Your task to perform on an android device: Search for hotels in Miami Image 0: 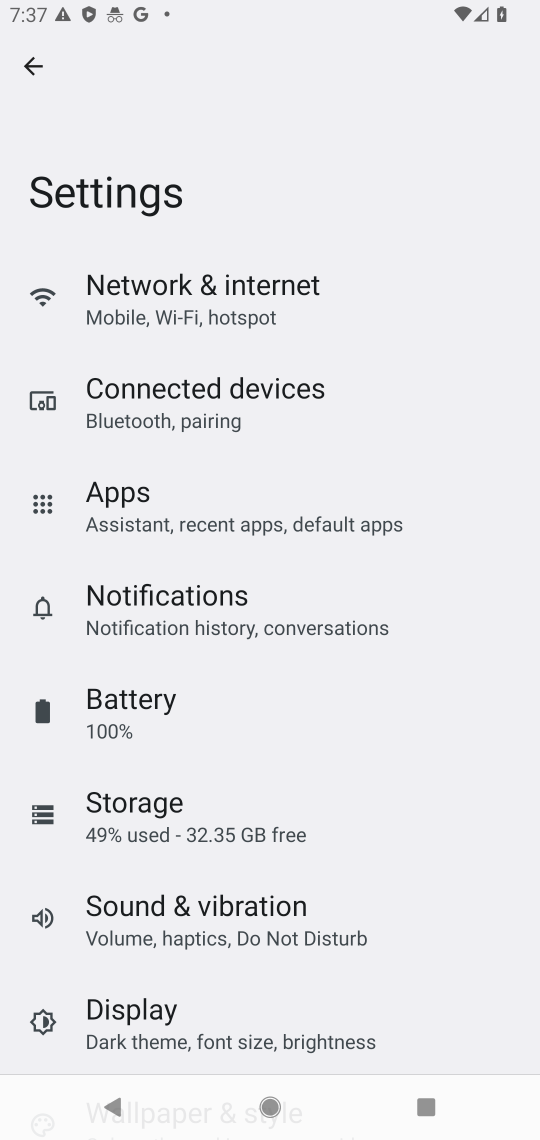
Step 0: press home button
Your task to perform on an android device: Search for hotels in Miami Image 1: 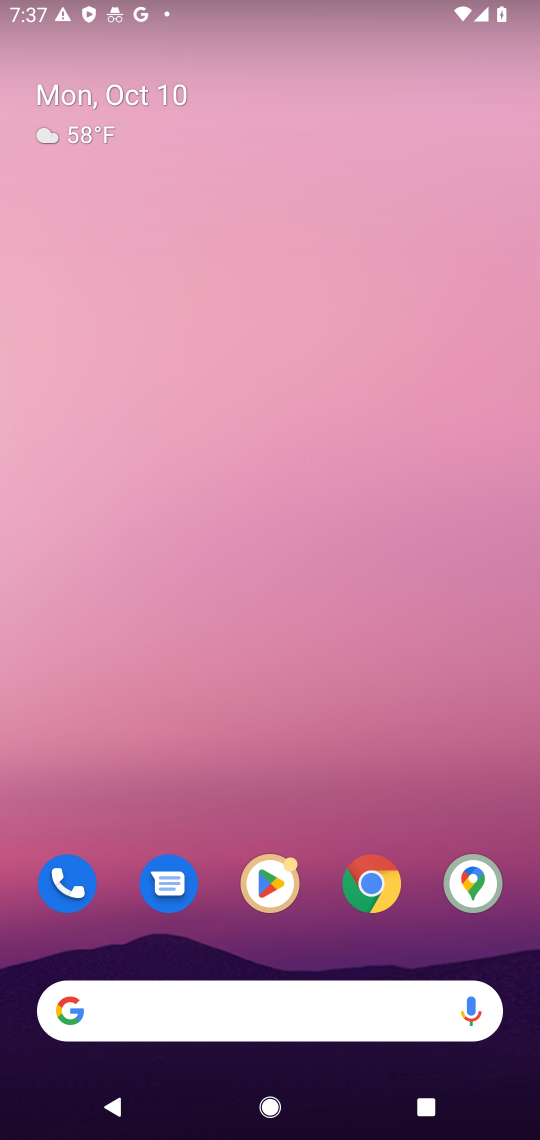
Step 1: drag from (300, 985) to (353, 193)
Your task to perform on an android device: Search for hotels in Miami Image 2: 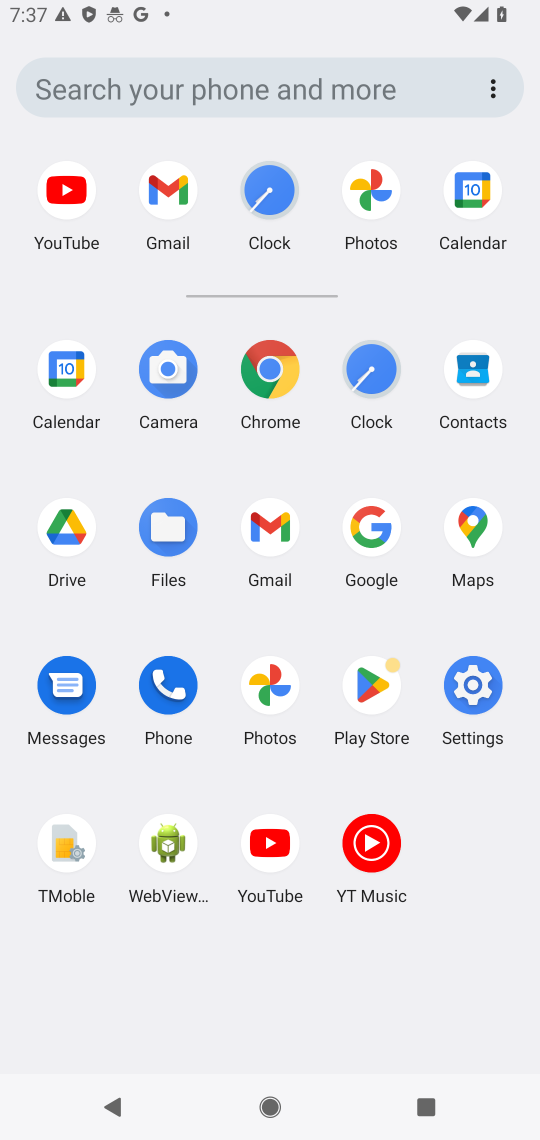
Step 2: click (382, 531)
Your task to perform on an android device: Search for hotels in Miami Image 3: 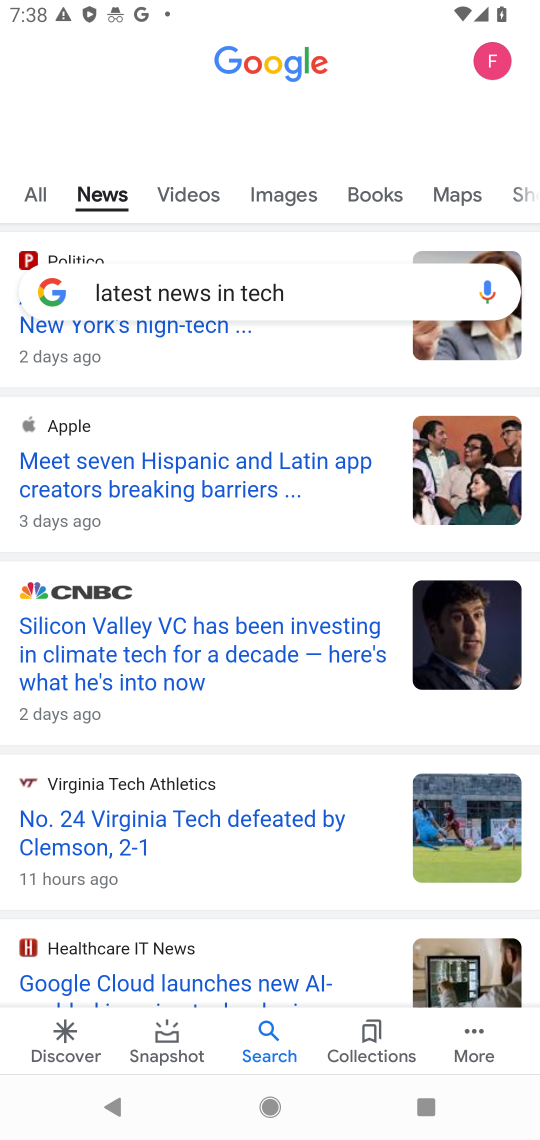
Step 3: click (339, 287)
Your task to perform on an android device: Search for hotels in Miami Image 4: 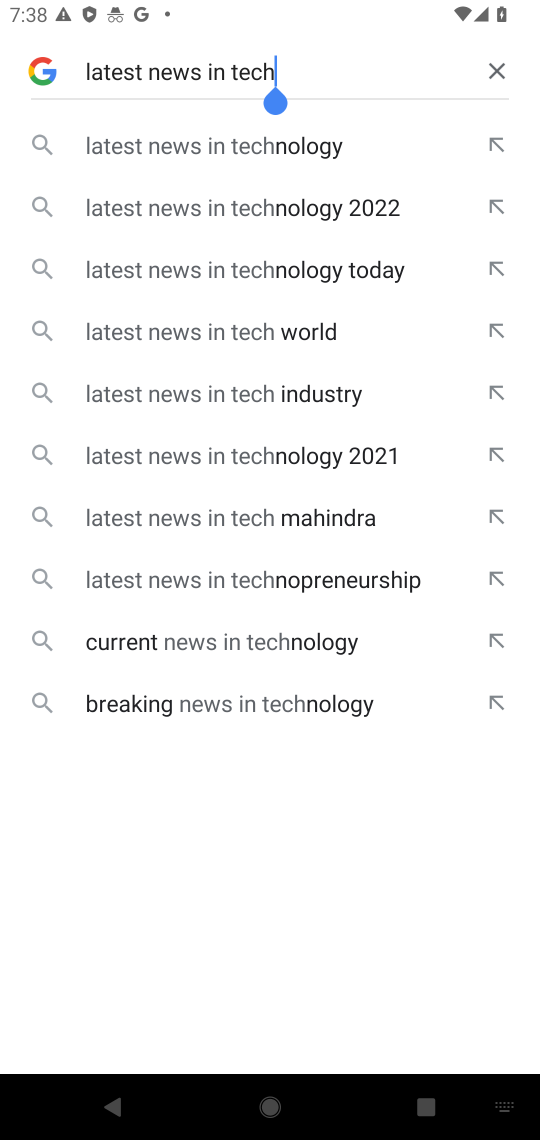
Step 4: click (501, 66)
Your task to perform on an android device: Search for hotels in Miami Image 5: 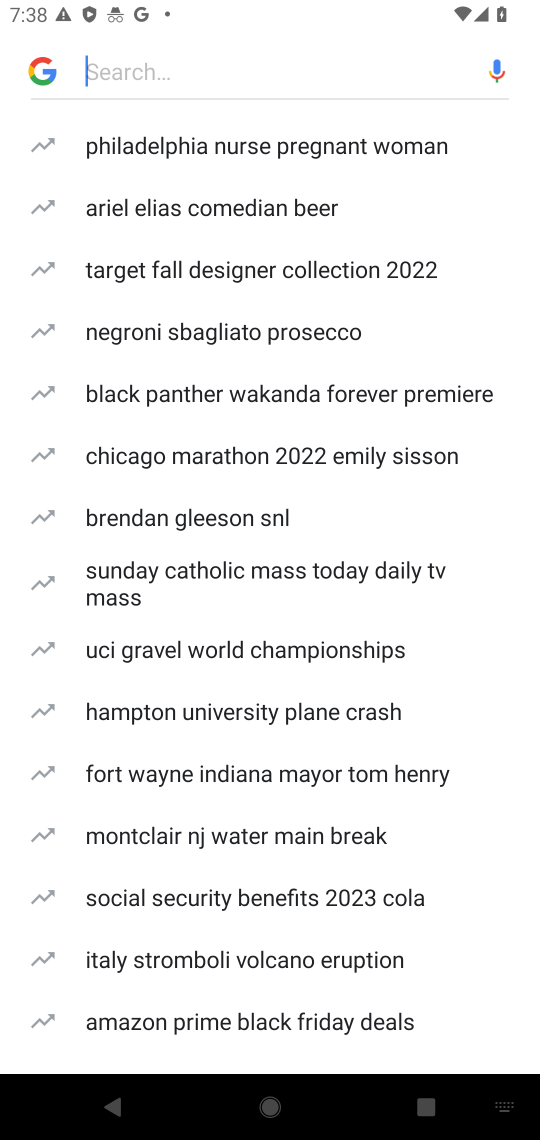
Step 5: type "hotels in Miami"
Your task to perform on an android device: Search for hotels in Miami Image 6: 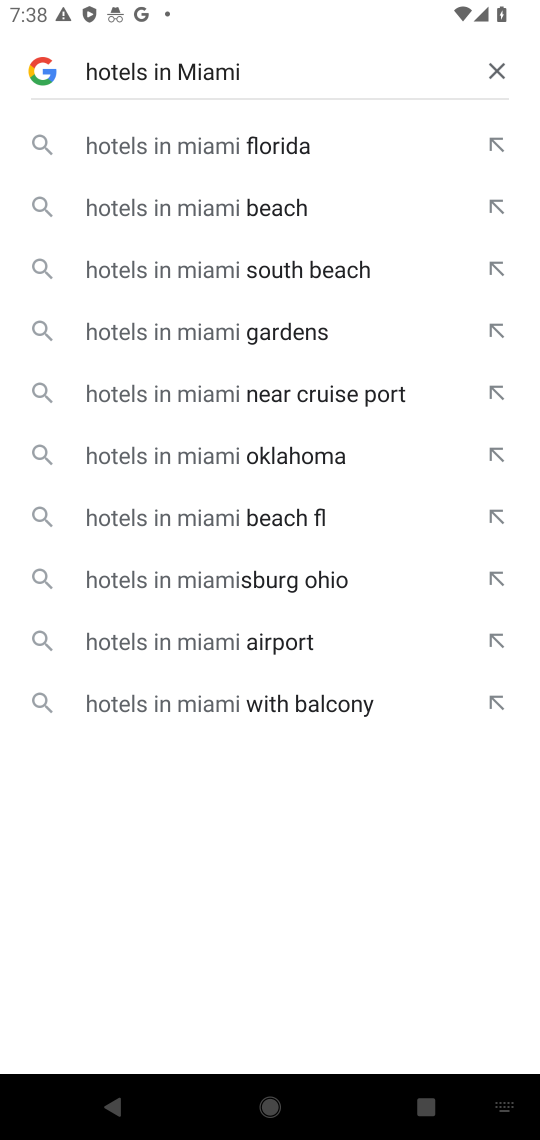
Step 6: click (242, 152)
Your task to perform on an android device: Search for hotels in Miami Image 7: 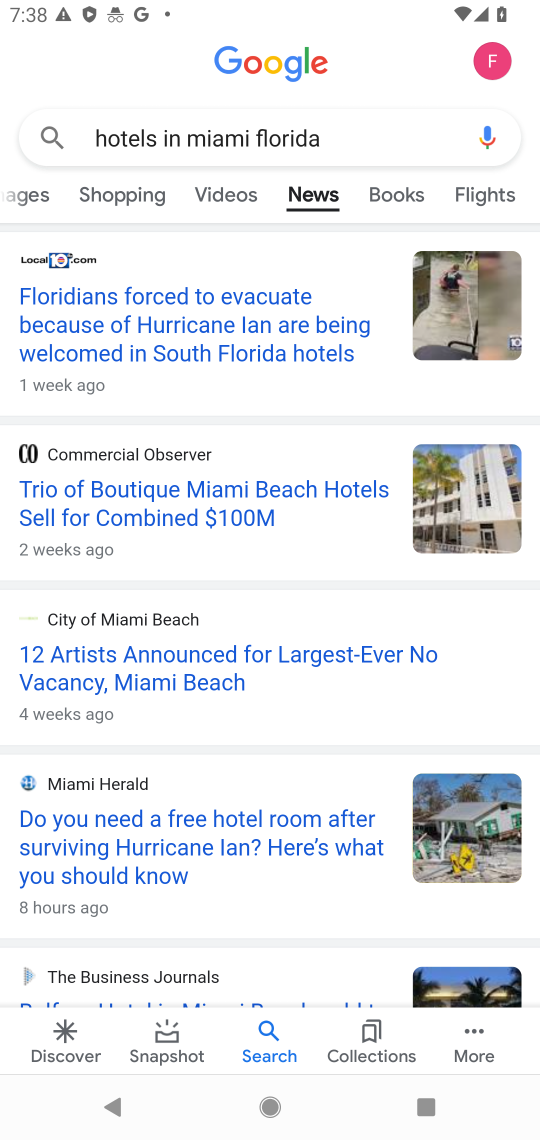
Step 7: drag from (168, 201) to (539, 164)
Your task to perform on an android device: Search for hotels in Miami Image 8: 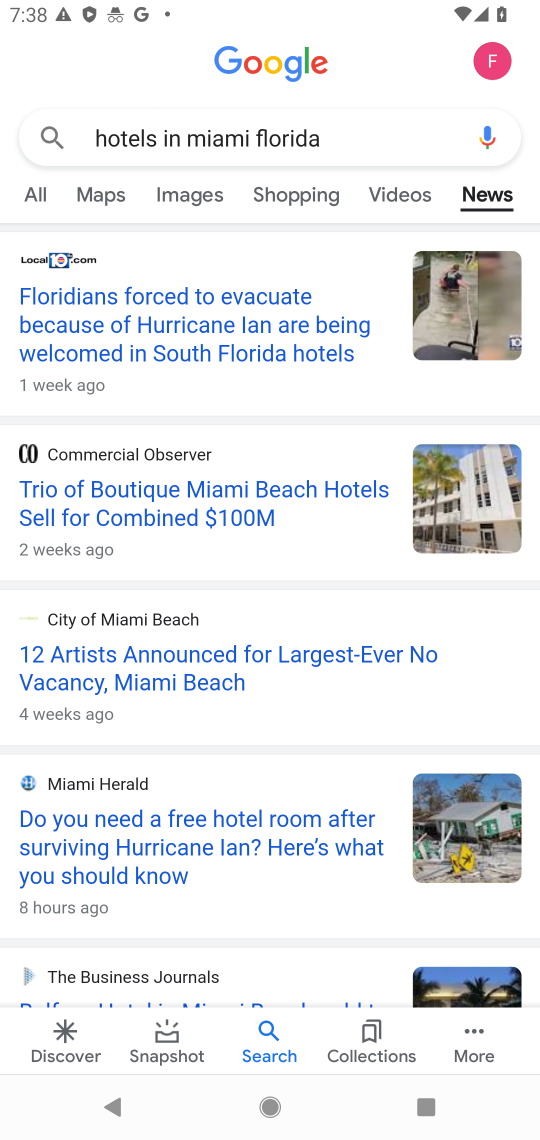
Step 8: click (41, 201)
Your task to perform on an android device: Search for hotels in Miami Image 9: 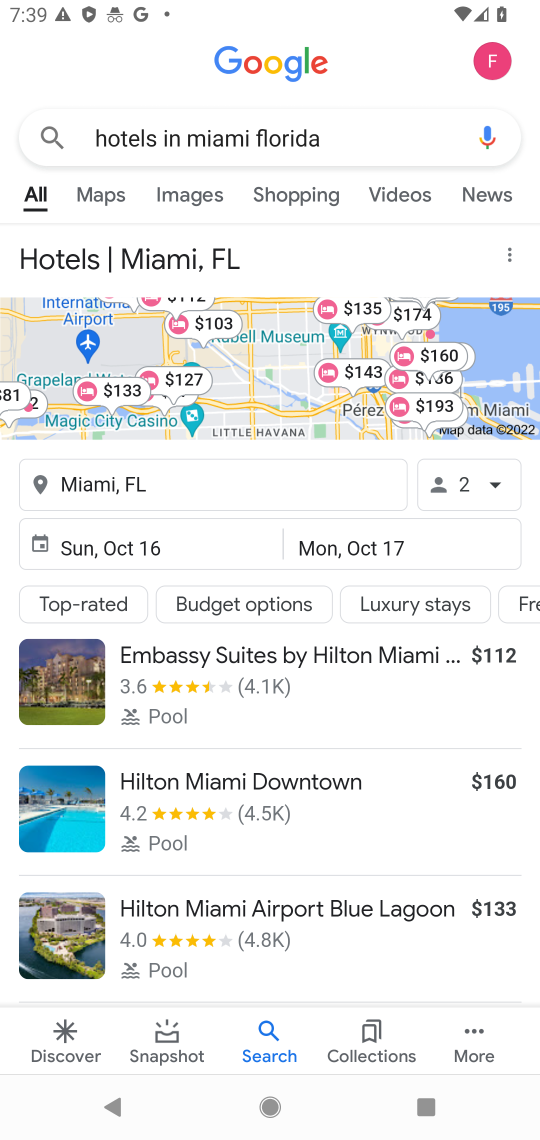
Step 9: task complete